Your task to perform on an android device: empty trash in google photos Image 0: 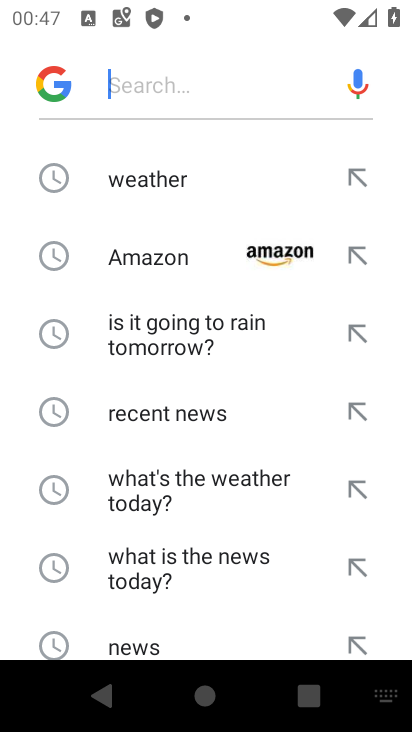
Step 0: press home button
Your task to perform on an android device: empty trash in google photos Image 1: 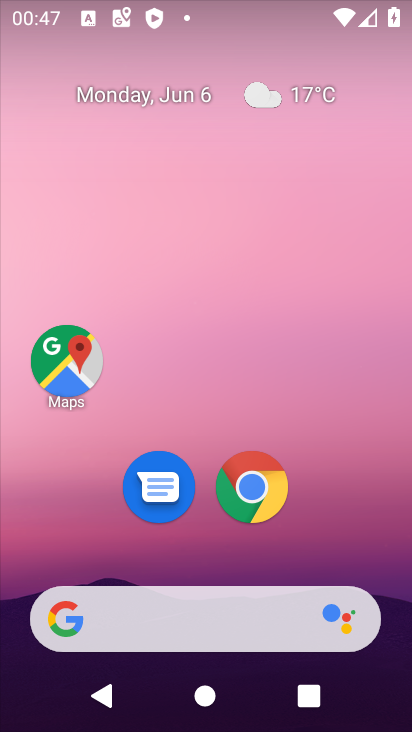
Step 1: drag from (397, 635) to (297, 96)
Your task to perform on an android device: empty trash in google photos Image 2: 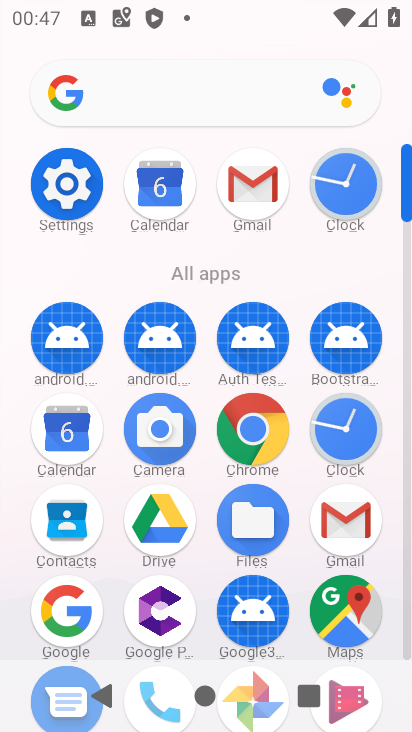
Step 2: click (407, 646)
Your task to perform on an android device: empty trash in google photos Image 3: 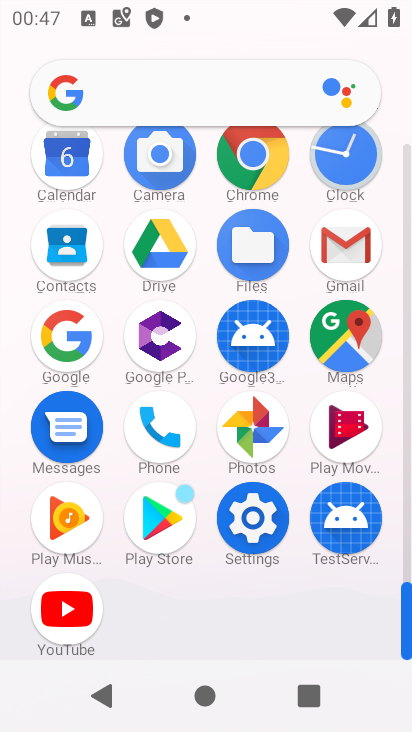
Step 3: click (251, 425)
Your task to perform on an android device: empty trash in google photos Image 4: 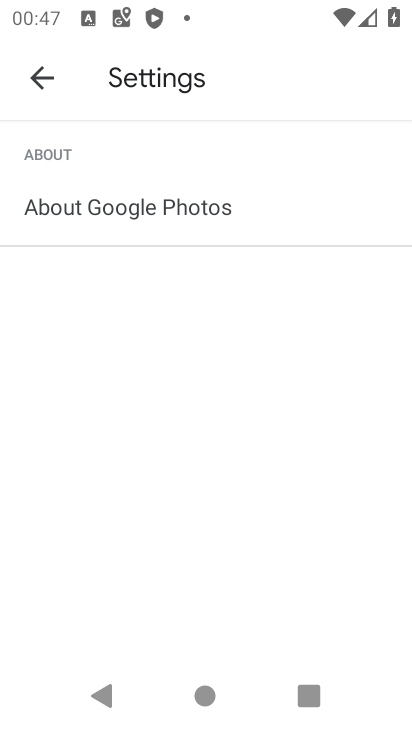
Step 4: task complete